Your task to perform on an android device: change text size in settings app Image 0: 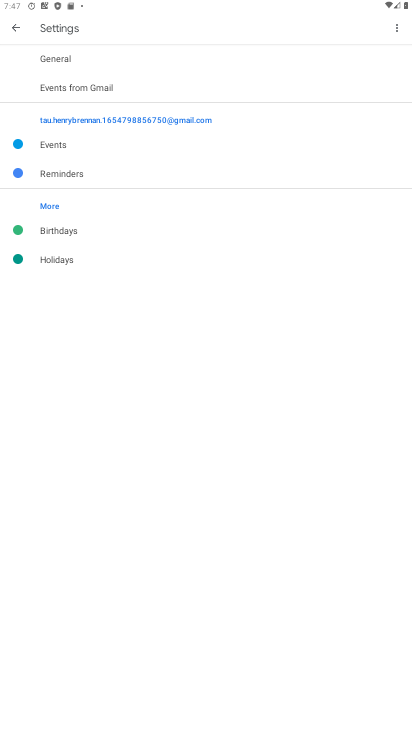
Step 0: press home button
Your task to perform on an android device: change text size in settings app Image 1: 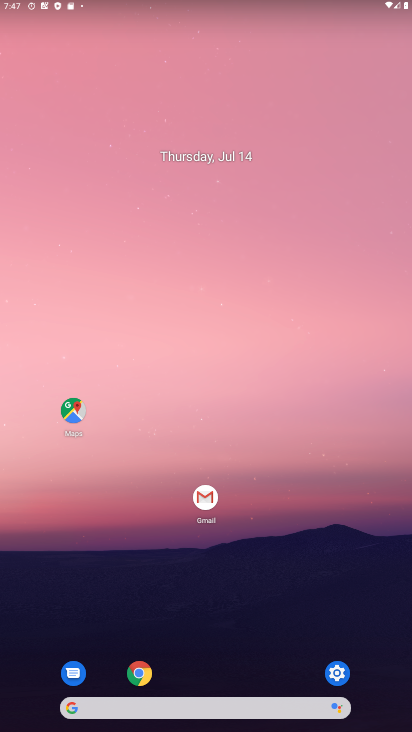
Step 1: click (334, 672)
Your task to perform on an android device: change text size in settings app Image 2: 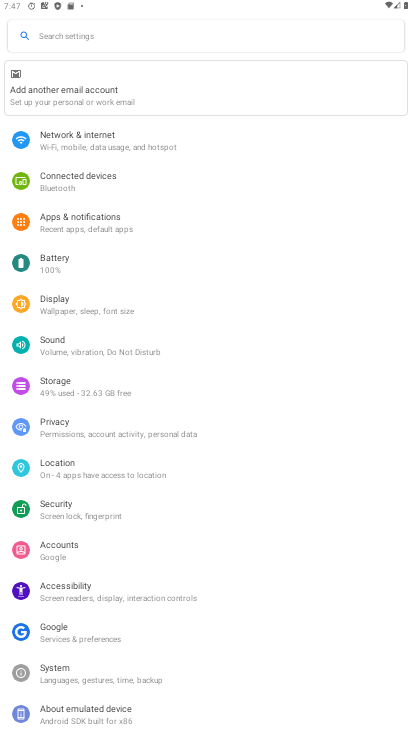
Step 2: click (76, 39)
Your task to perform on an android device: change text size in settings app Image 3: 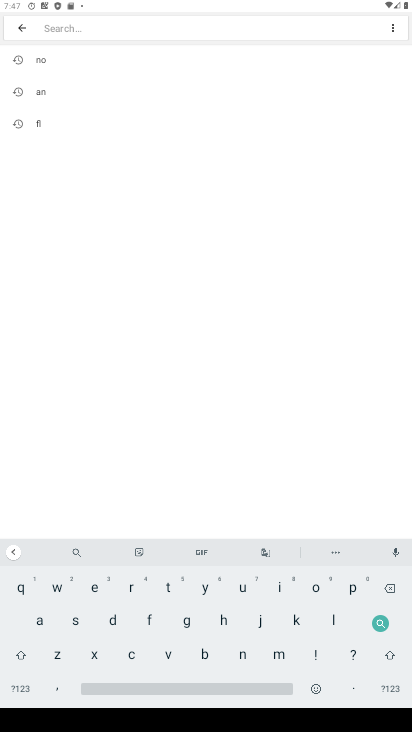
Step 3: click (71, 623)
Your task to perform on an android device: change text size in settings app Image 4: 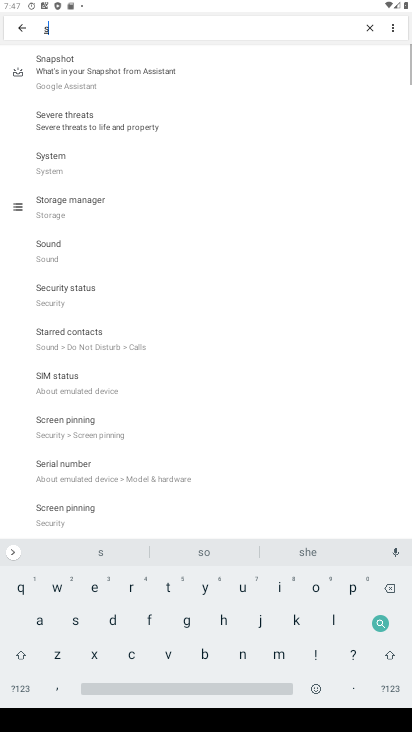
Step 4: click (275, 592)
Your task to perform on an android device: change text size in settings app Image 5: 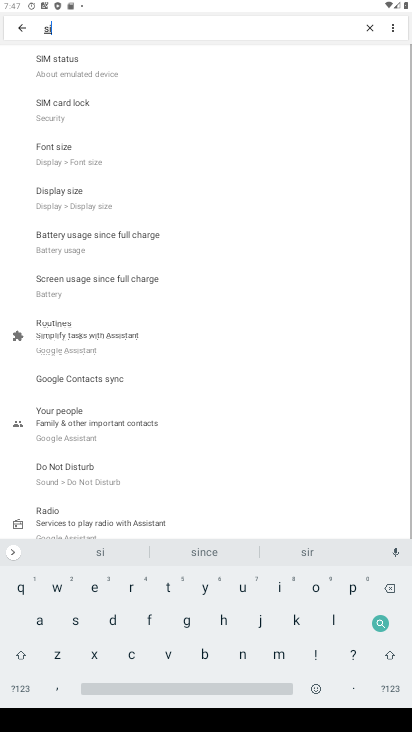
Step 5: click (59, 655)
Your task to perform on an android device: change text size in settings app Image 6: 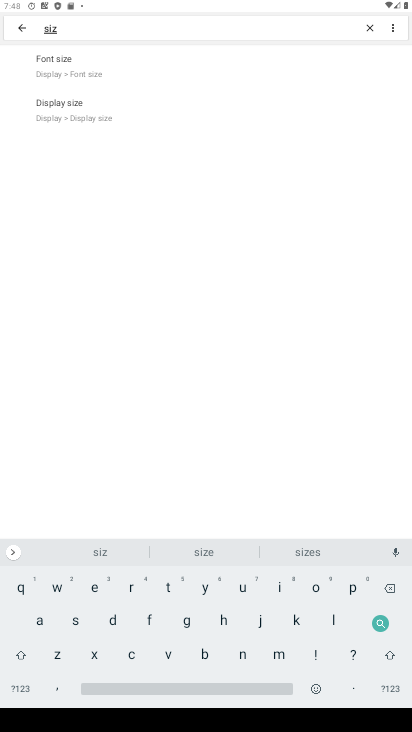
Step 6: click (72, 63)
Your task to perform on an android device: change text size in settings app Image 7: 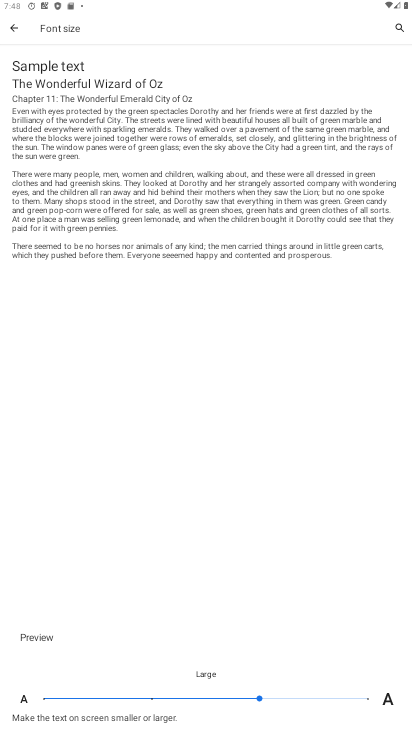
Step 7: click (364, 692)
Your task to perform on an android device: change text size in settings app Image 8: 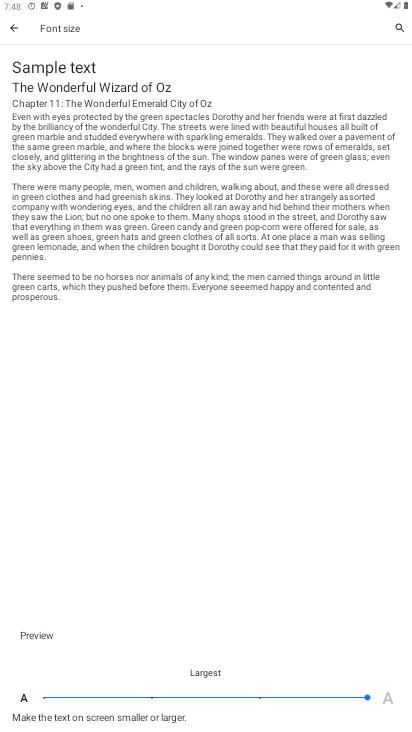
Step 8: task complete